Your task to perform on an android device: set the timer Image 0: 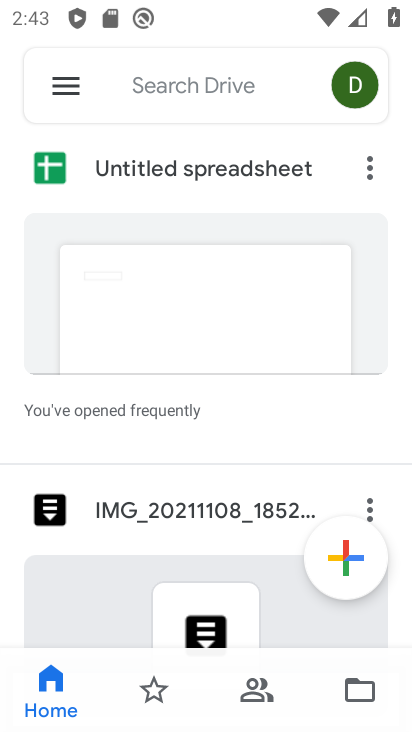
Step 0: press home button
Your task to perform on an android device: set the timer Image 1: 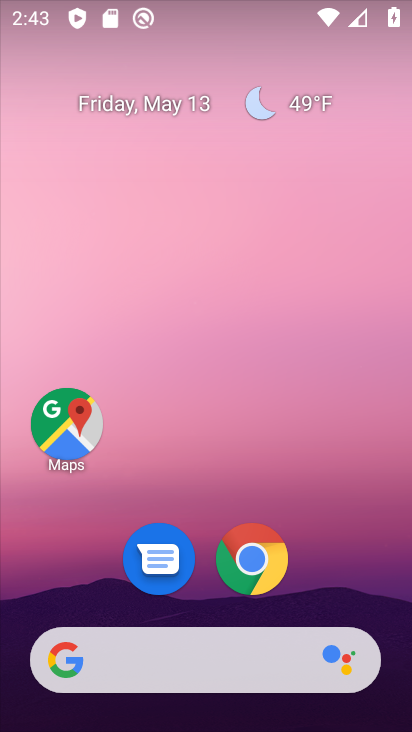
Step 1: drag from (386, 612) to (318, 86)
Your task to perform on an android device: set the timer Image 2: 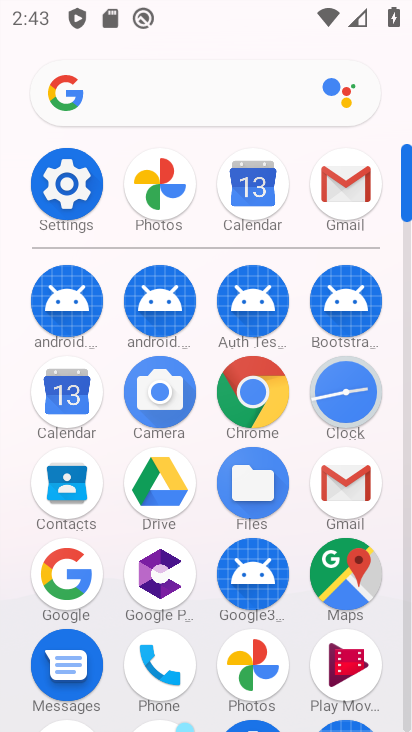
Step 2: click (408, 694)
Your task to perform on an android device: set the timer Image 3: 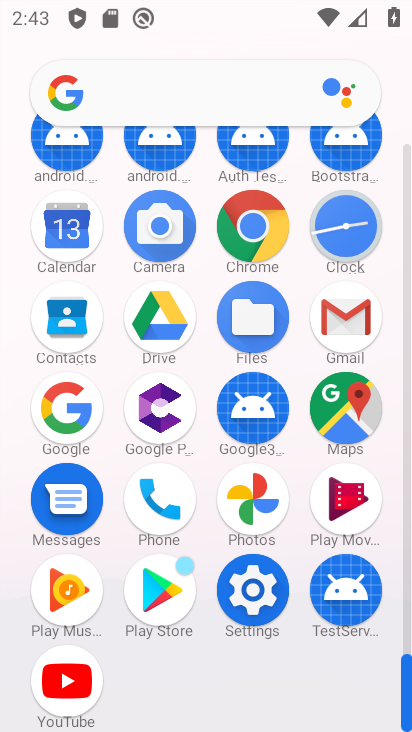
Step 3: click (340, 224)
Your task to perform on an android device: set the timer Image 4: 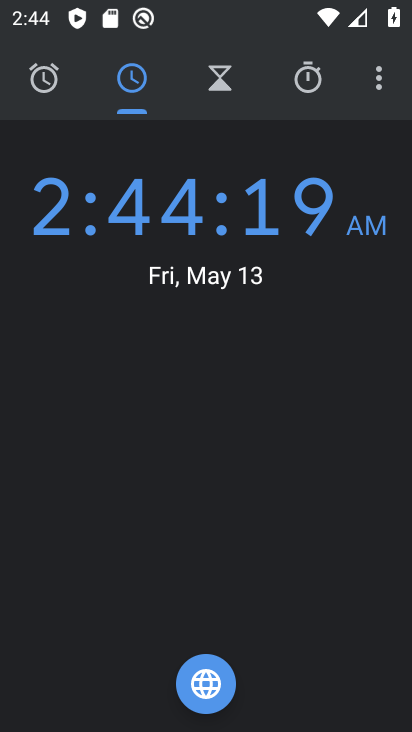
Step 4: click (209, 71)
Your task to perform on an android device: set the timer Image 5: 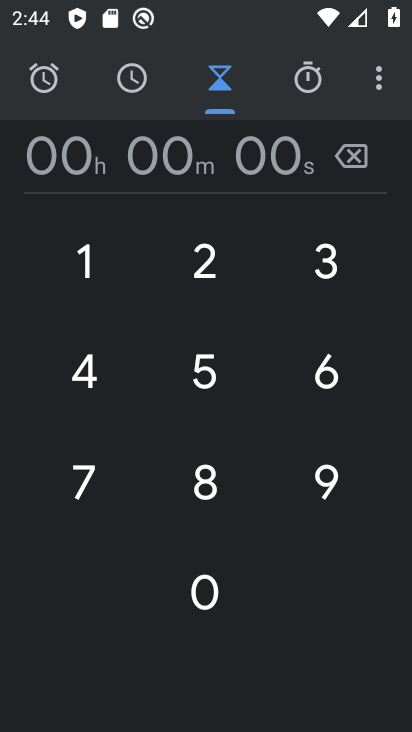
Step 5: click (122, 255)
Your task to perform on an android device: set the timer Image 6: 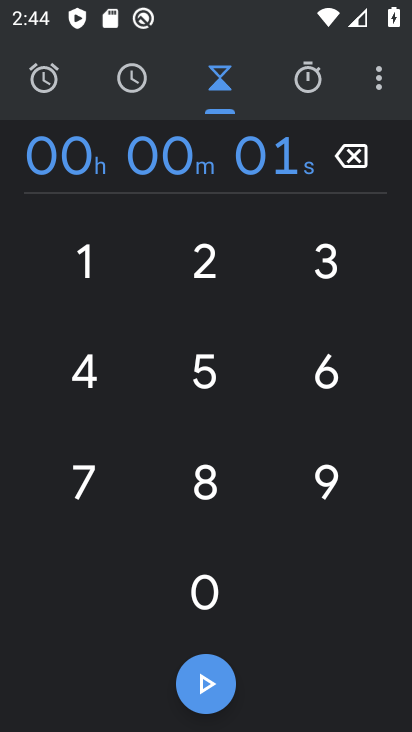
Step 6: click (300, 260)
Your task to perform on an android device: set the timer Image 7: 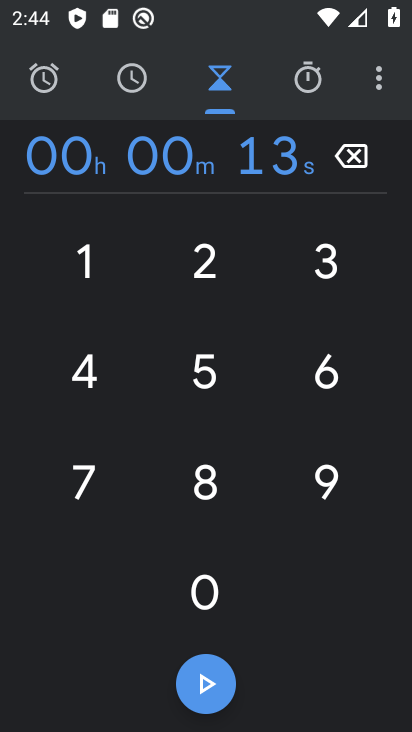
Step 7: click (200, 573)
Your task to perform on an android device: set the timer Image 8: 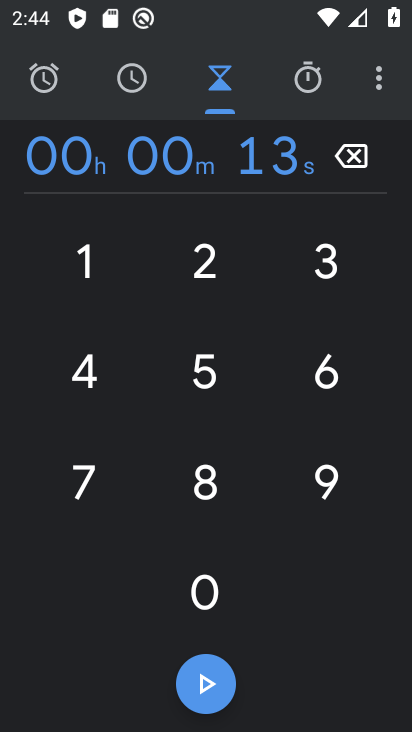
Step 8: click (200, 573)
Your task to perform on an android device: set the timer Image 9: 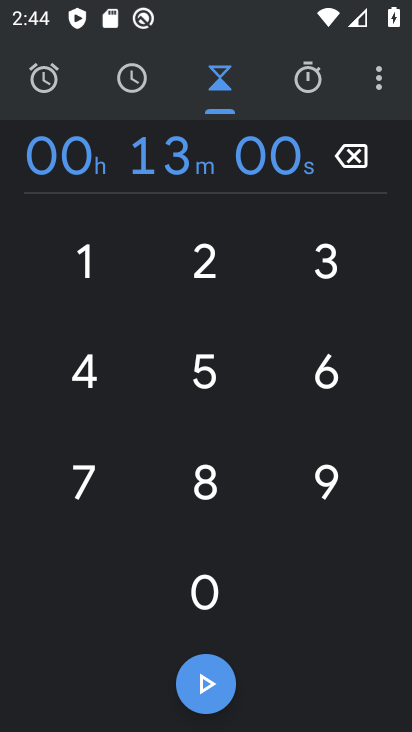
Step 9: click (200, 573)
Your task to perform on an android device: set the timer Image 10: 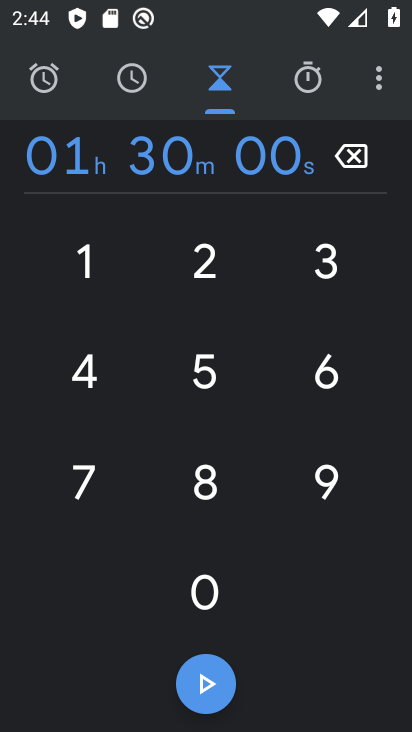
Step 10: task complete